Your task to perform on an android device: Turn off the flashlight Image 0: 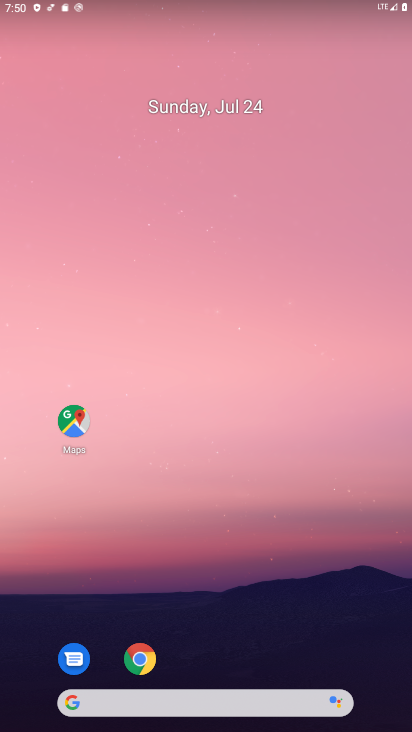
Step 0: drag from (218, 710) to (208, 202)
Your task to perform on an android device: Turn off the flashlight Image 1: 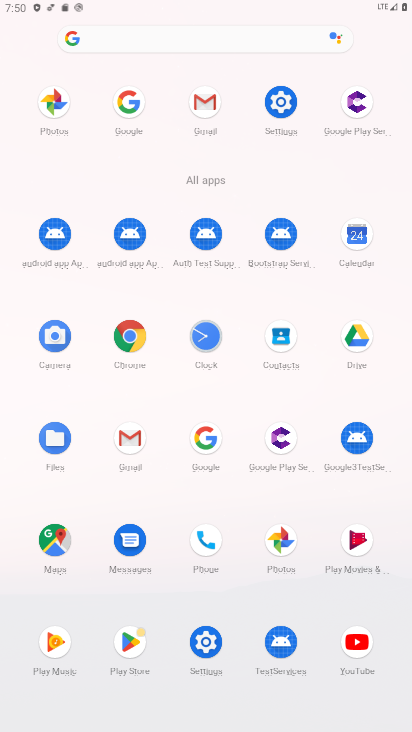
Step 1: click (281, 96)
Your task to perform on an android device: Turn off the flashlight Image 2: 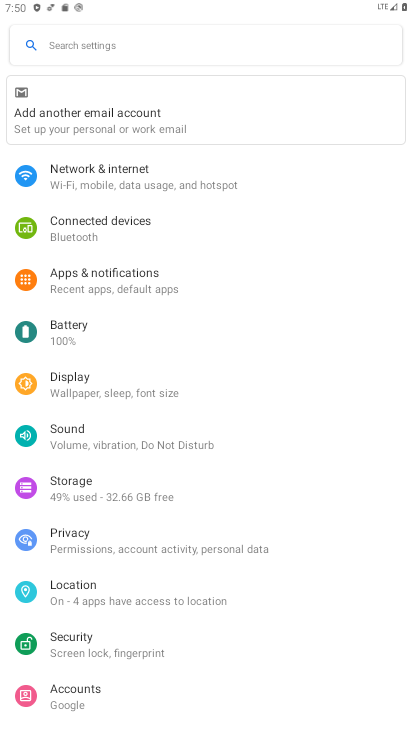
Step 2: task complete